Your task to perform on an android device: make emails show in primary in the gmail app Image 0: 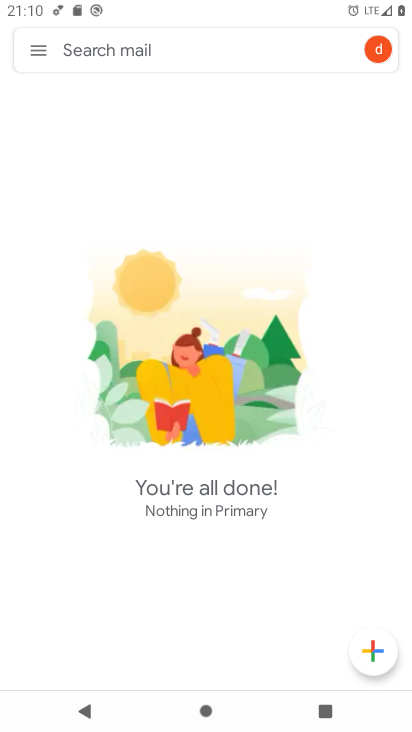
Step 0: press home button
Your task to perform on an android device: make emails show in primary in the gmail app Image 1: 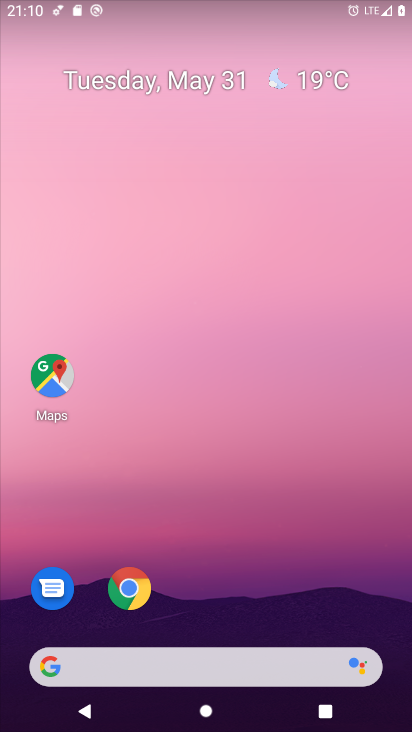
Step 1: drag from (161, 671) to (255, 159)
Your task to perform on an android device: make emails show in primary in the gmail app Image 2: 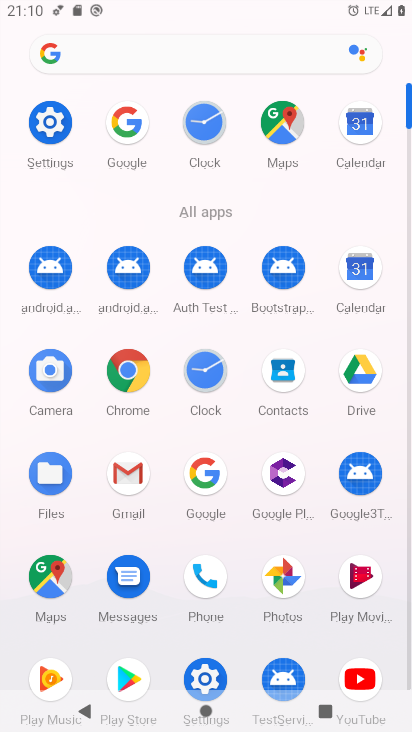
Step 2: click (131, 485)
Your task to perform on an android device: make emails show in primary in the gmail app Image 3: 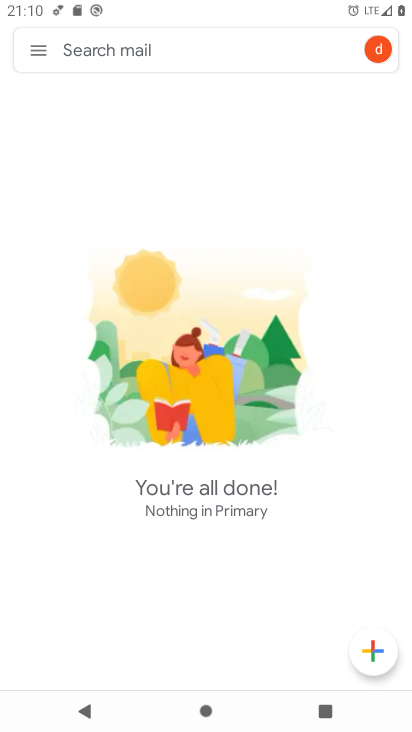
Step 3: click (42, 43)
Your task to perform on an android device: make emails show in primary in the gmail app Image 4: 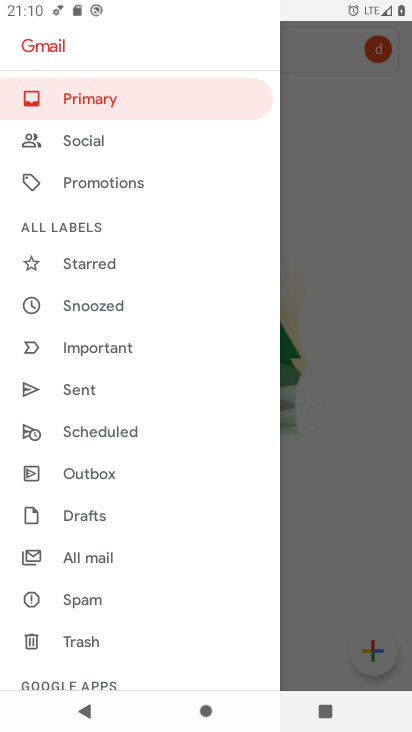
Step 4: drag from (138, 612) to (246, 150)
Your task to perform on an android device: make emails show in primary in the gmail app Image 5: 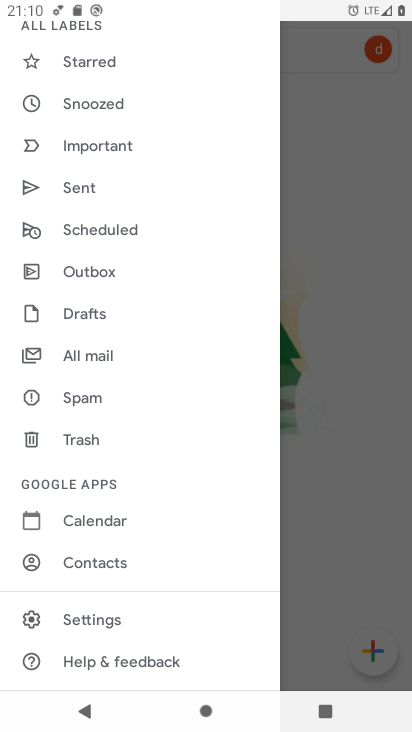
Step 5: click (110, 624)
Your task to perform on an android device: make emails show in primary in the gmail app Image 6: 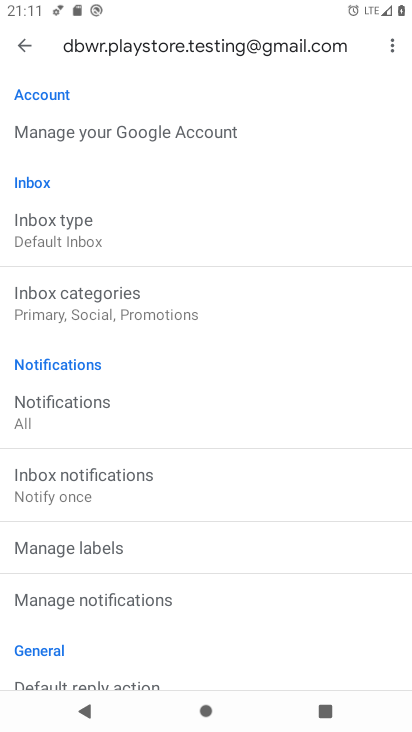
Step 6: click (107, 302)
Your task to perform on an android device: make emails show in primary in the gmail app Image 7: 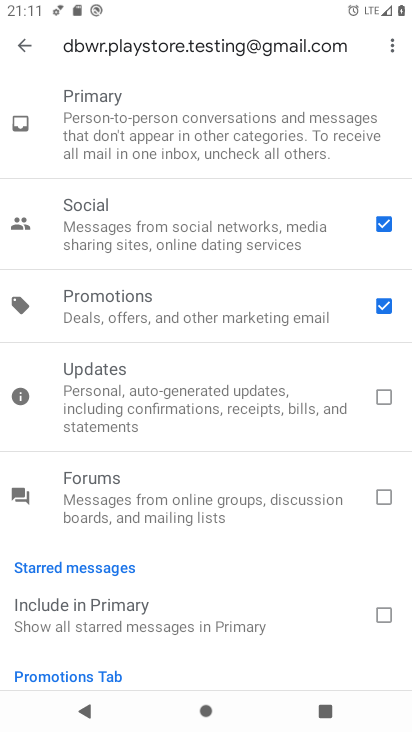
Step 7: click (380, 223)
Your task to perform on an android device: make emails show in primary in the gmail app Image 8: 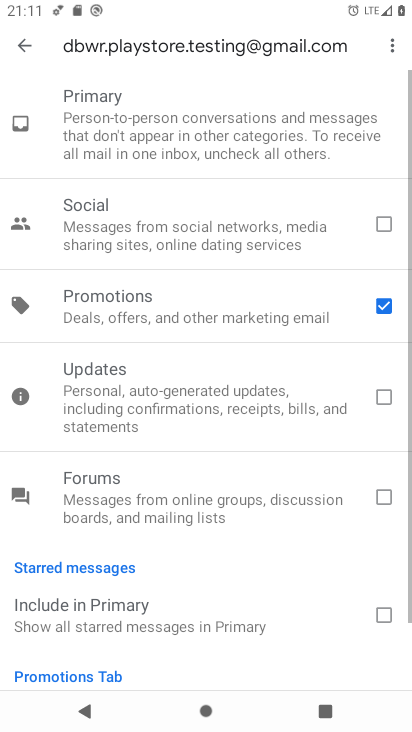
Step 8: click (382, 309)
Your task to perform on an android device: make emails show in primary in the gmail app Image 9: 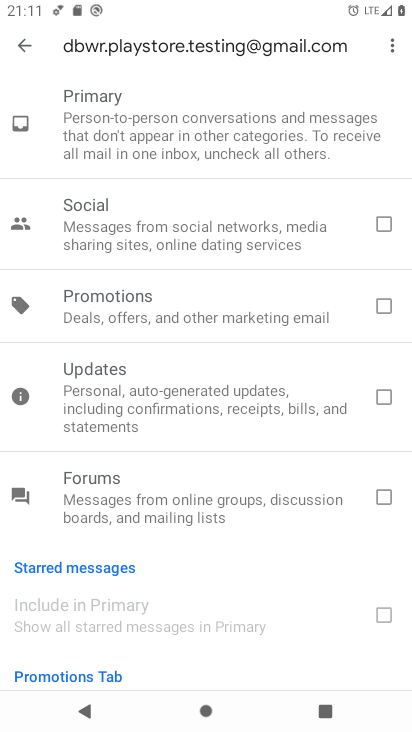
Step 9: click (26, 36)
Your task to perform on an android device: make emails show in primary in the gmail app Image 10: 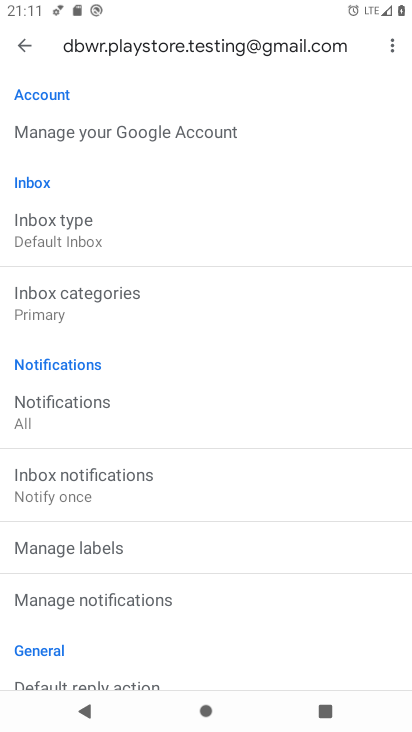
Step 10: task complete